Your task to perform on an android device: add a label to a message in the gmail app Image 0: 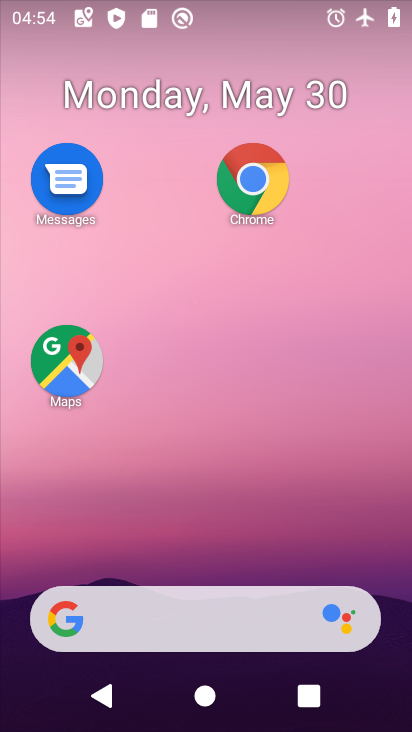
Step 0: click (166, 542)
Your task to perform on an android device: add a label to a message in the gmail app Image 1: 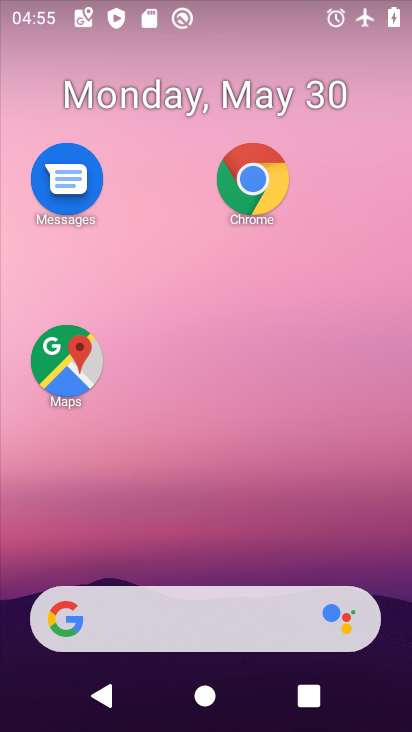
Step 1: click (208, 586)
Your task to perform on an android device: add a label to a message in the gmail app Image 2: 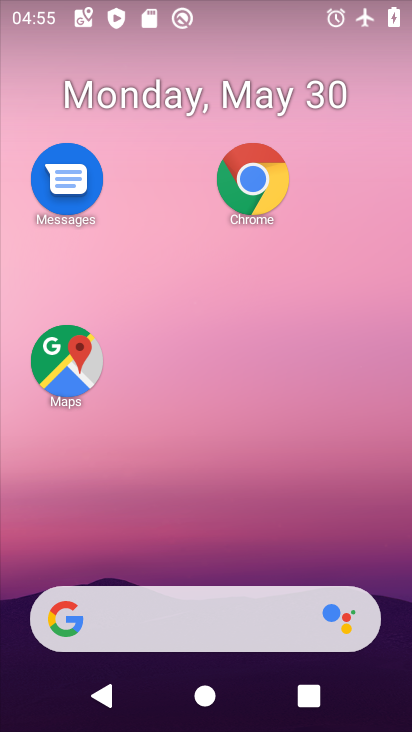
Step 2: drag from (246, 551) to (138, 9)
Your task to perform on an android device: add a label to a message in the gmail app Image 3: 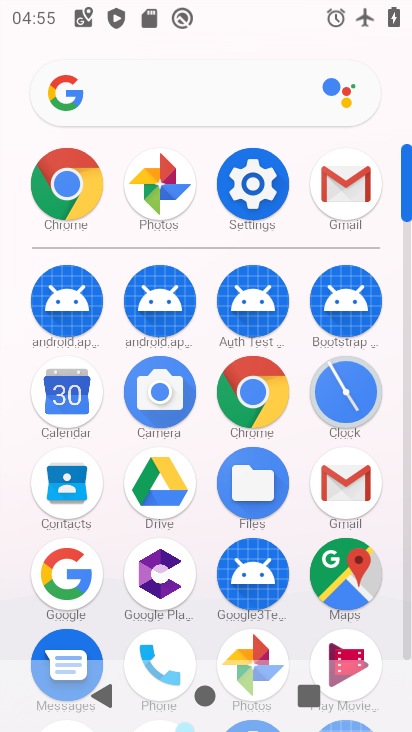
Step 3: click (356, 182)
Your task to perform on an android device: add a label to a message in the gmail app Image 4: 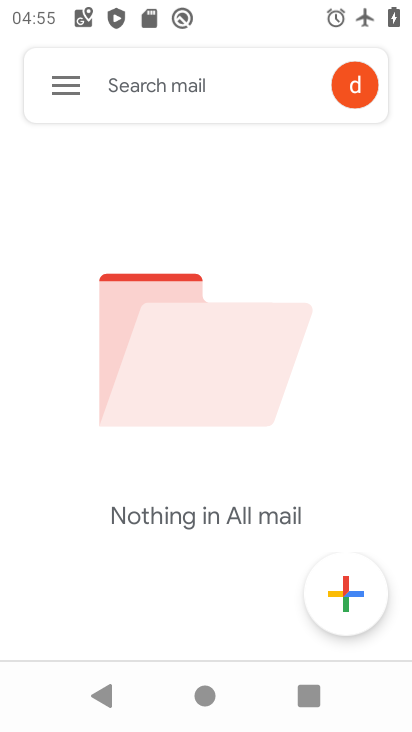
Step 4: click (60, 79)
Your task to perform on an android device: add a label to a message in the gmail app Image 5: 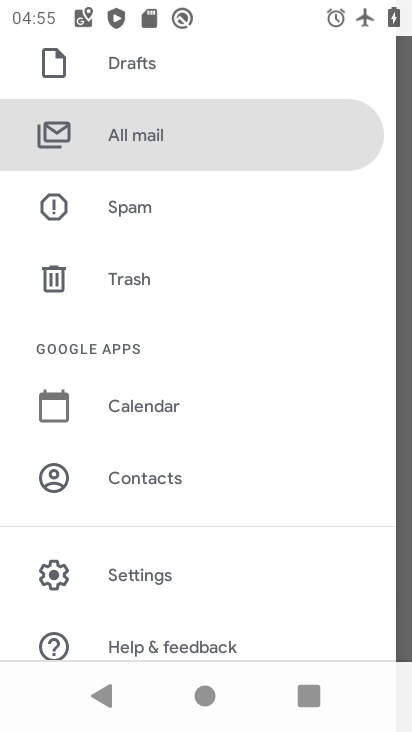
Step 5: task complete